Your task to perform on an android device: open chrome privacy settings Image 0: 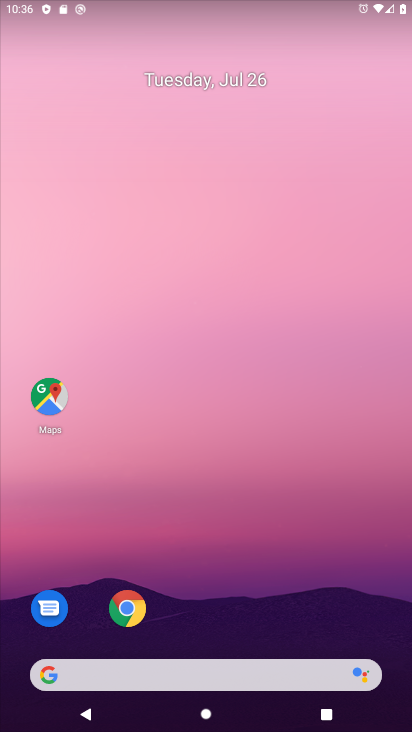
Step 0: click (129, 607)
Your task to perform on an android device: open chrome privacy settings Image 1: 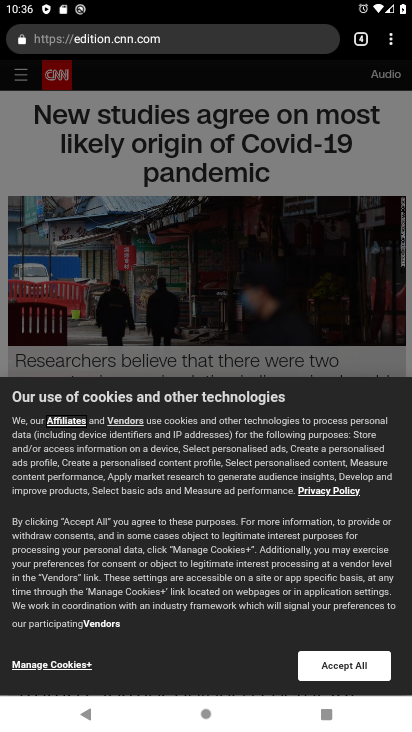
Step 1: click (393, 46)
Your task to perform on an android device: open chrome privacy settings Image 2: 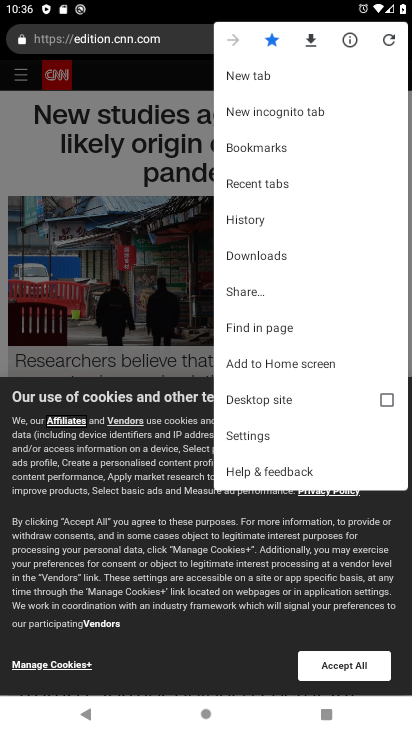
Step 2: click (241, 433)
Your task to perform on an android device: open chrome privacy settings Image 3: 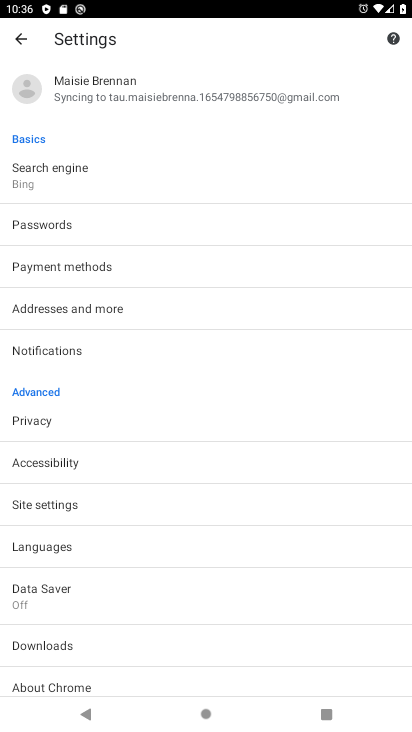
Step 3: click (30, 415)
Your task to perform on an android device: open chrome privacy settings Image 4: 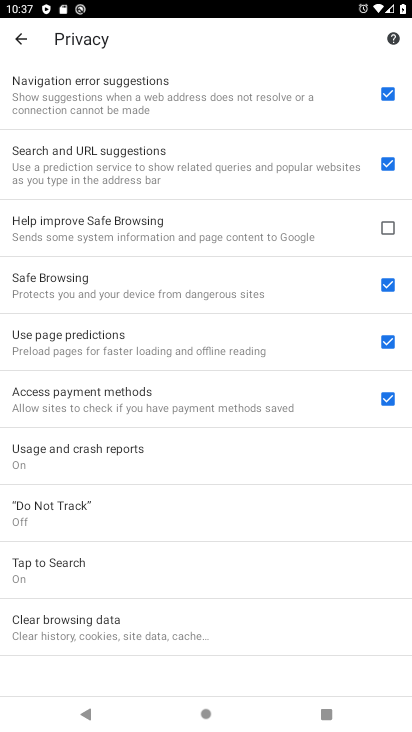
Step 4: task complete